Your task to perform on an android device: turn off improve location accuracy Image 0: 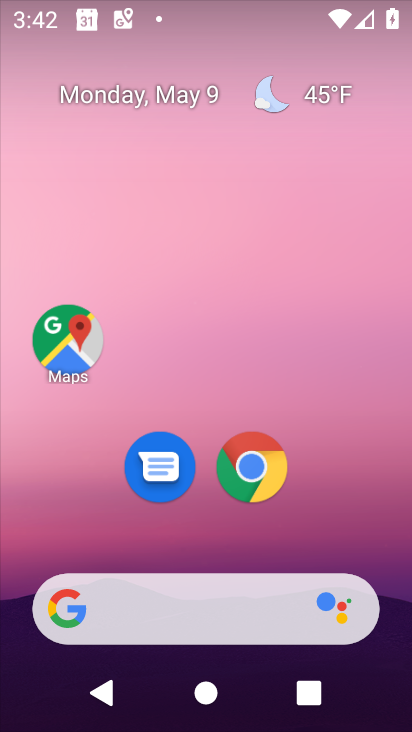
Step 0: drag from (343, 508) to (370, 148)
Your task to perform on an android device: turn off improve location accuracy Image 1: 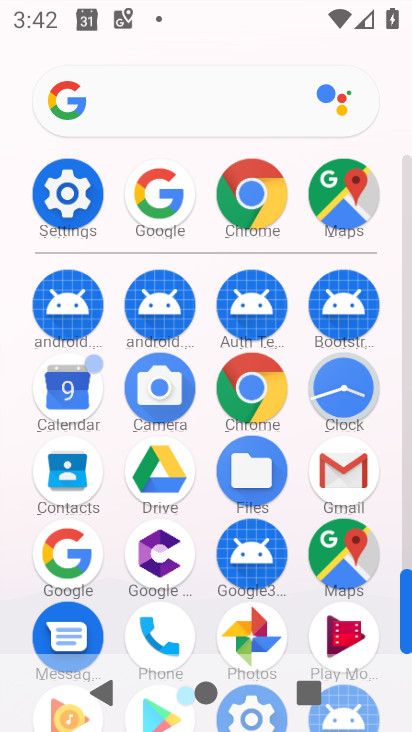
Step 1: click (77, 205)
Your task to perform on an android device: turn off improve location accuracy Image 2: 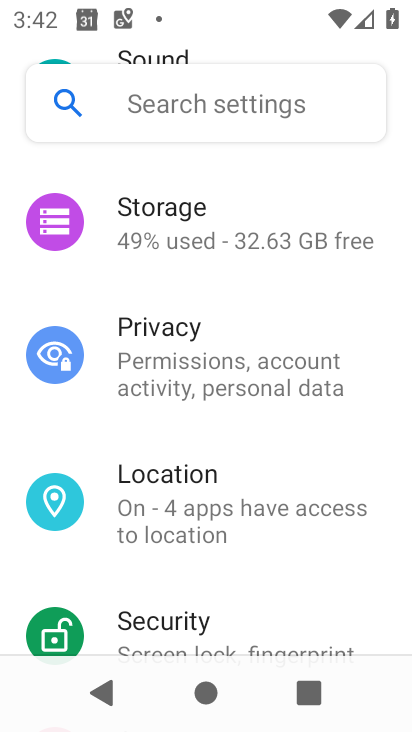
Step 2: click (234, 506)
Your task to perform on an android device: turn off improve location accuracy Image 3: 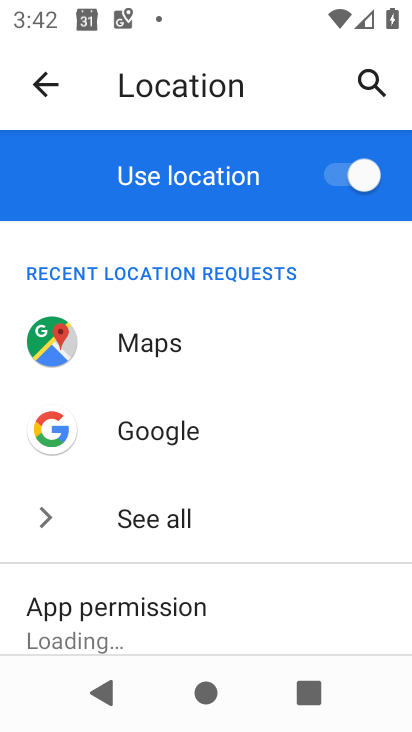
Step 3: drag from (261, 543) to (284, 310)
Your task to perform on an android device: turn off improve location accuracy Image 4: 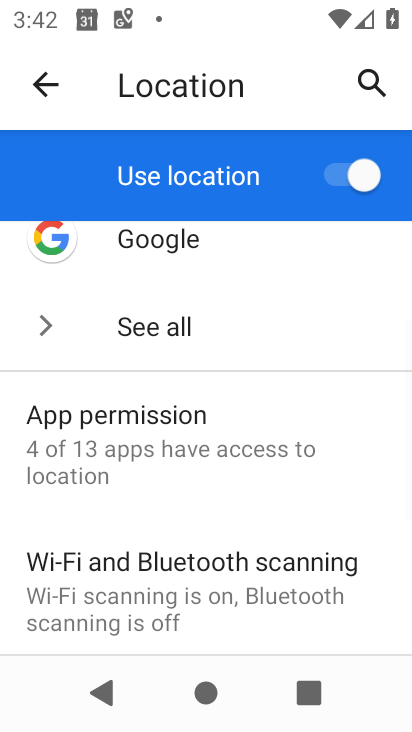
Step 4: drag from (240, 538) to (250, 249)
Your task to perform on an android device: turn off improve location accuracy Image 5: 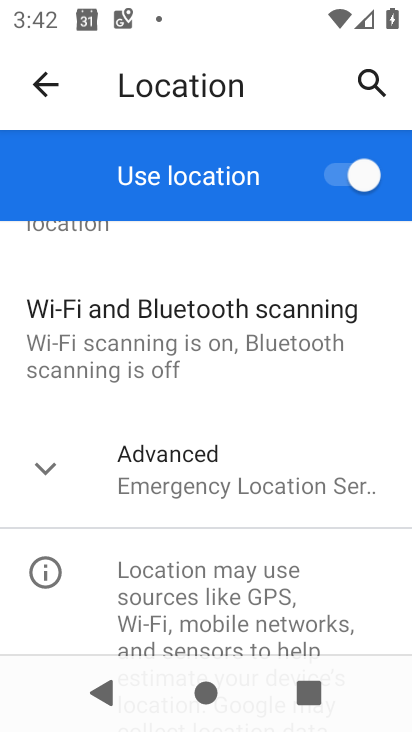
Step 5: click (45, 467)
Your task to perform on an android device: turn off improve location accuracy Image 6: 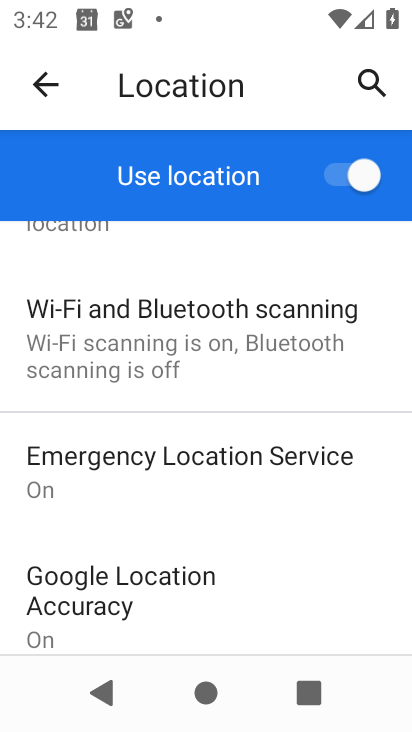
Step 6: drag from (193, 618) to (235, 374)
Your task to perform on an android device: turn off improve location accuracy Image 7: 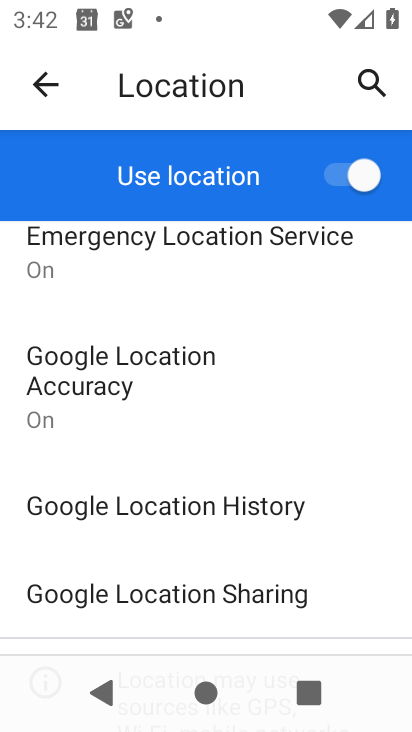
Step 7: click (231, 384)
Your task to perform on an android device: turn off improve location accuracy Image 8: 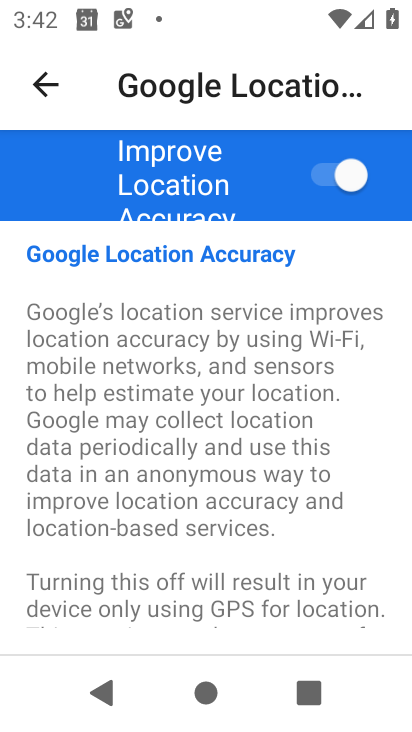
Step 8: click (349, 178)
Your task to perform on an android device: turn off improve location accuracy Image 9: 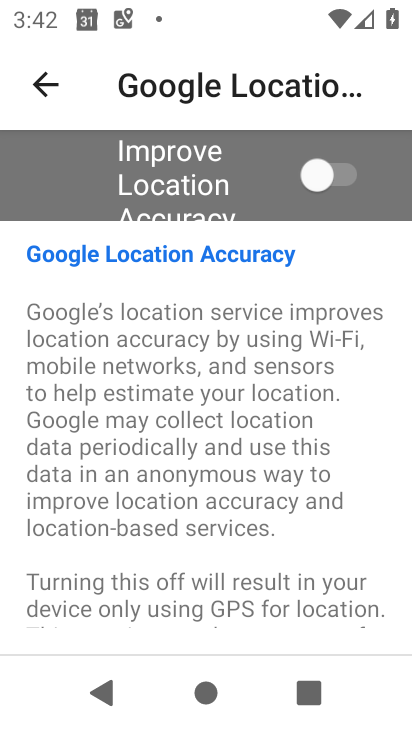
Step 9: task complete